Your task to perform on an android device: uninstall "Move to iOS" Image 0: 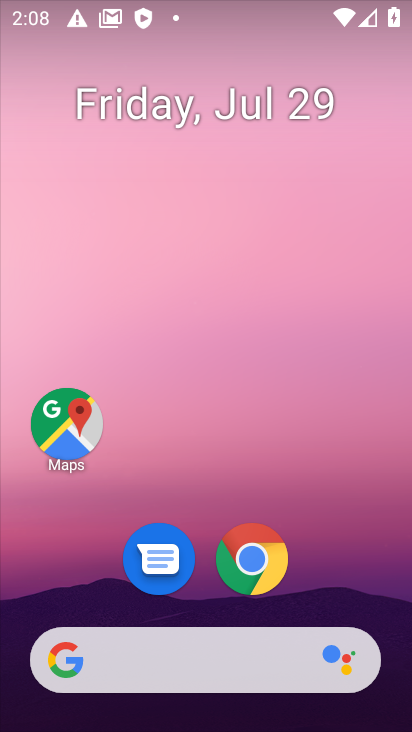
Step 0: drag from (327, 572) to (299, 82)
Your task to perform on an android device: uninstall "Move to iOS" Image 1: 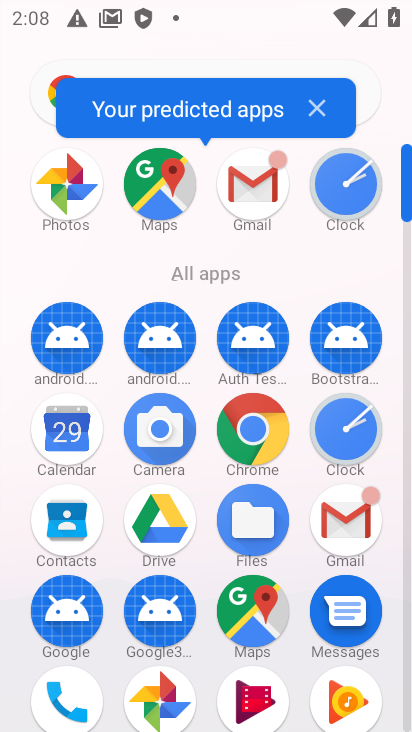
Step 1: drag from (202, 607) to (127, 141)
Your task to perform on an android device: uninstall "Move to iOS" Image 2: 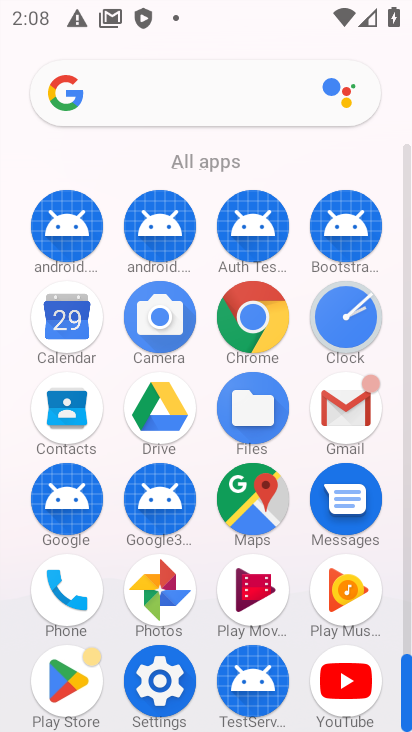
Step 2: click (56, 669)
Your task to perform on an android device: uninstall "Move to iOS" Image 3: 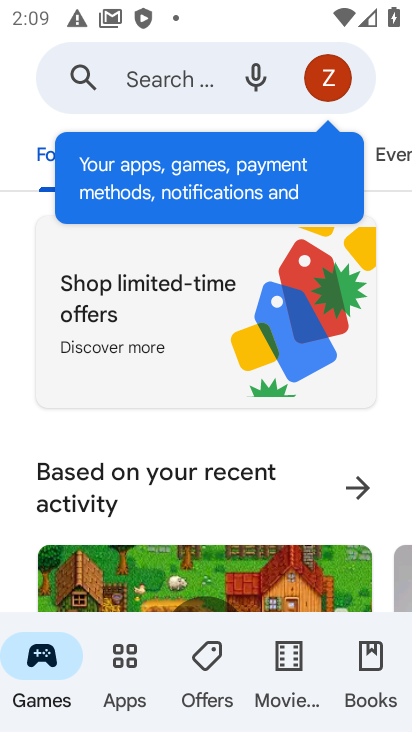
Step 3: click (134, 63)
Your task to perform on an android device: uninstall "Move to iOS" Image 4: 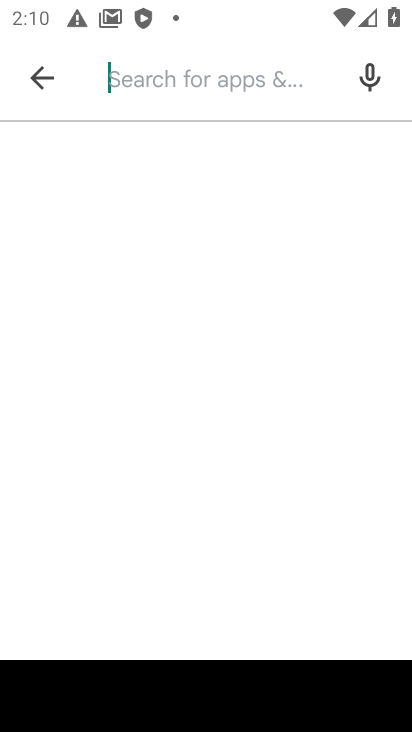
Step 4: type "Move to iOS""
Your task to perform on an android device: uninstall "Move to iOS" Image 5: 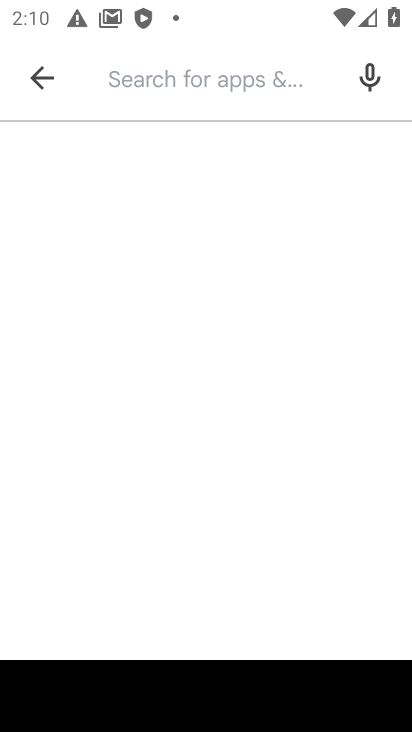
Step 5: type "Move to ios"
Your task to perform on an android device: uninstall "Move to iOS" Image 6: 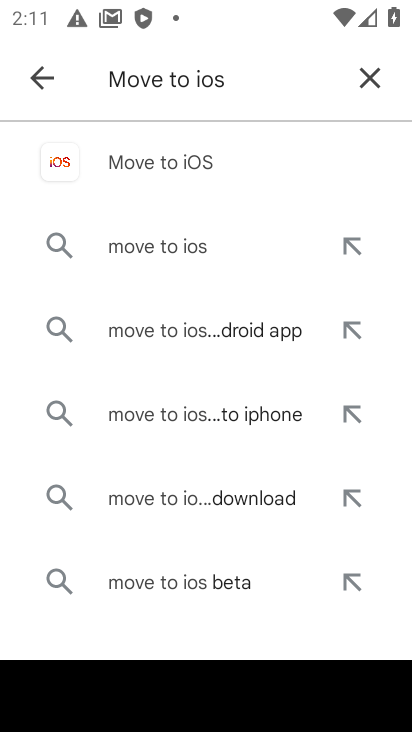
Step 6: click (179, 161)
Your task to perform on an android device: uninstall "Move to iOS" Image 7: 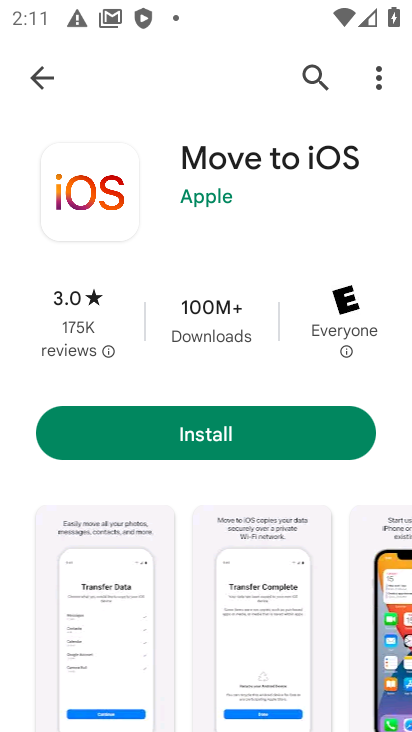
Step 7: click (211, 430)
Your task to perform on an android device: uninstall "Move to iOS" Image 8: 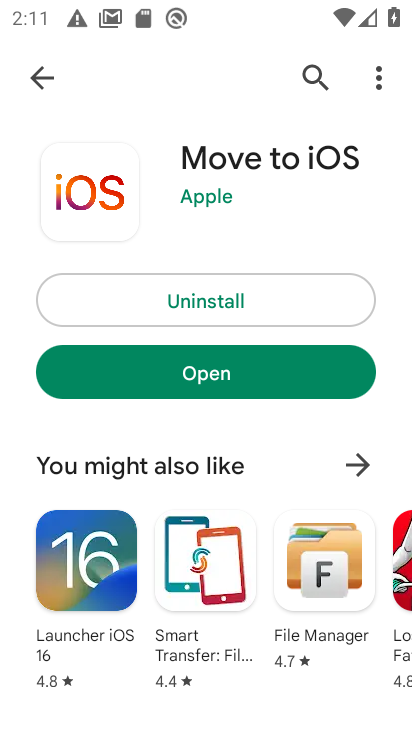
Step 8: click (293, 304)
Your task to perform on an android device: uninstall "Move to iOS" Image 9: 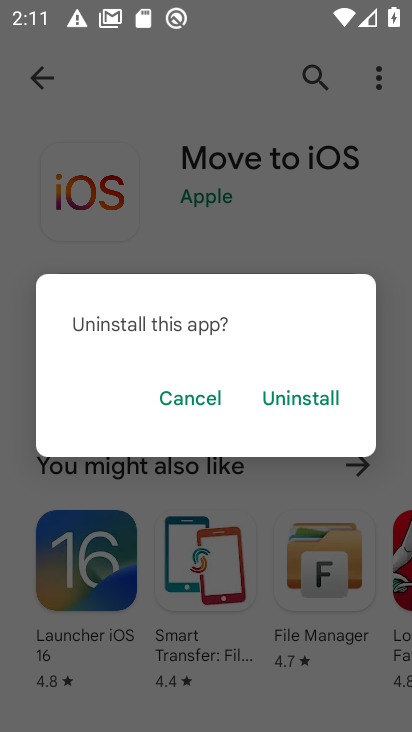
Step 9: click (298, 394)
Your task to perform on an android device: uninstall "Move to iOS" Image 10: 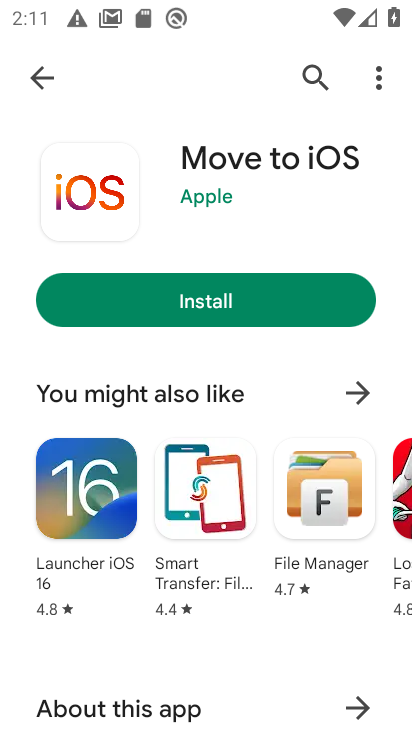
Step 10: task complete